Your task to perform on an android device: What's on my calendar tomorrow? Image 0: 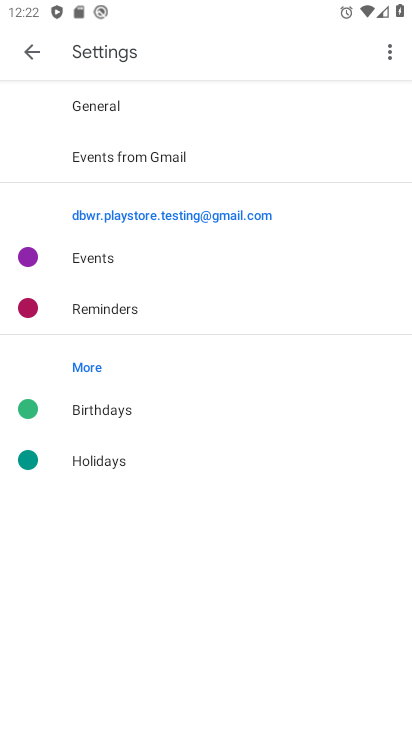
Step 0: press home button
Your task to perform on an android device: What's on my calendar tomorrow? Image 1: 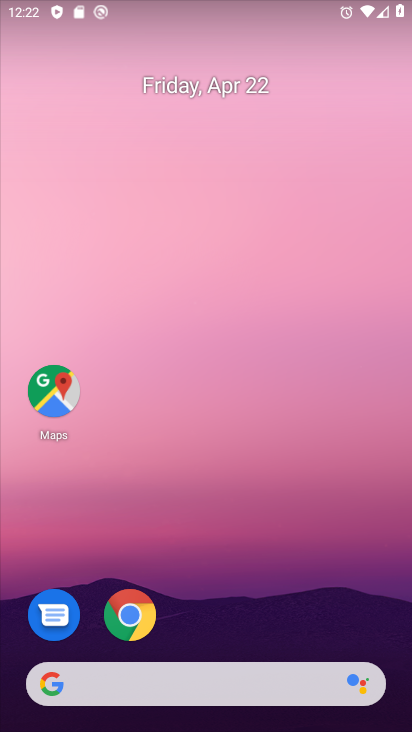
Step 1: drag from (223, 465) to (250, 67)
Your task to perform on an android device: What's on my calendar tomorrow? Image 2: 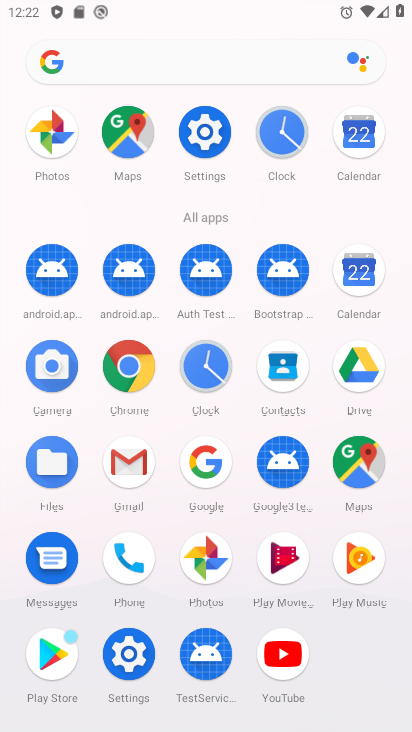
Step 2: click (351, 142)
Your task to perform on an android device: What's on my calendar tomorrow? Image 3: 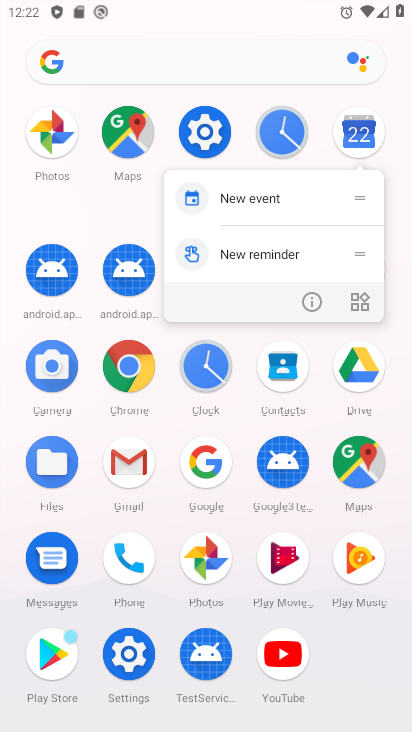
Step 3: click (350, 127)
Your task to perform on an android device: What's on my calendar tomorrow? Image 4: 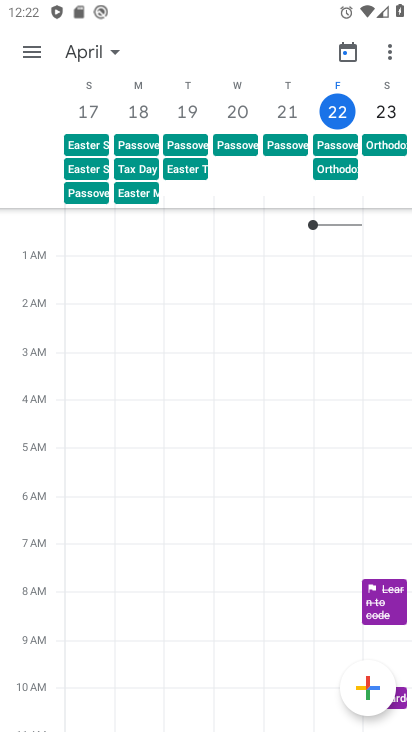
Step 4: click (46, 57)
Your task to perform on an android device: What's on my calendar tomorrow? Image 5: 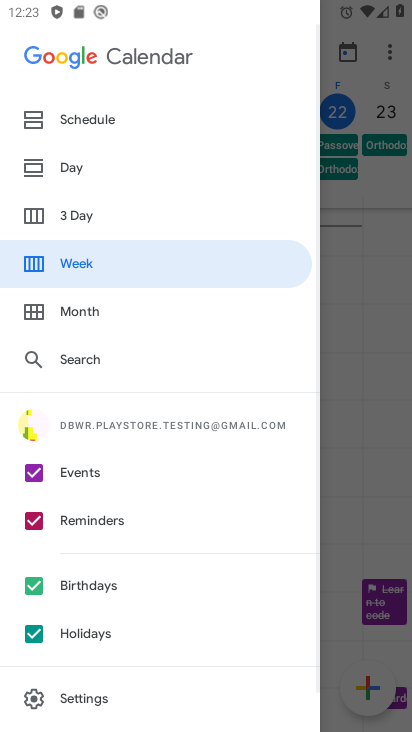
Step 5: click (96, 171)
Your task to perform on an android device: What's on my calendar tomorrow? Image 6: 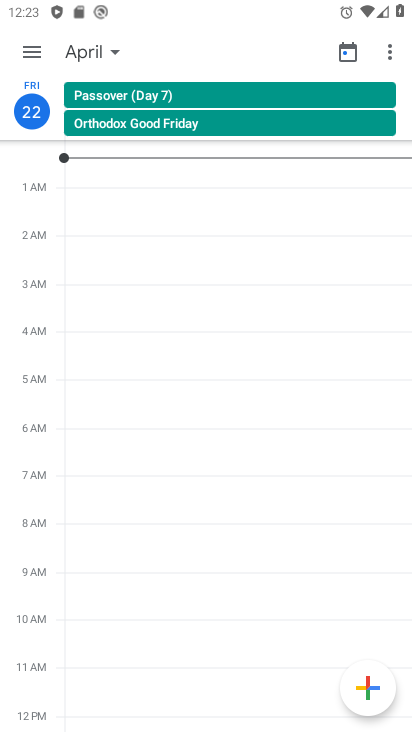
Step 6: task complete